Your task to perform on an android device: find photos in the google photos app Image 0: 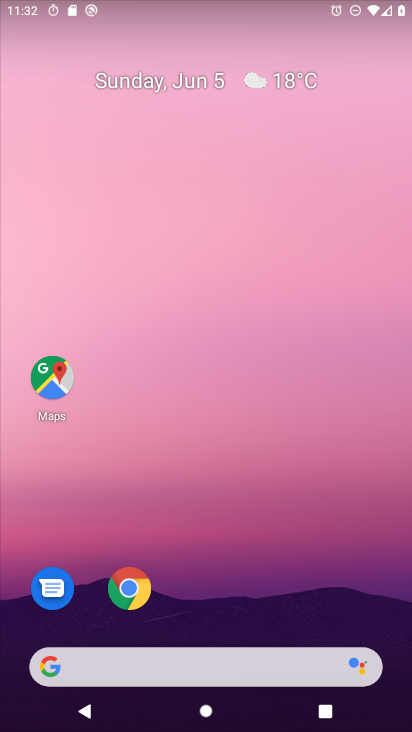
Step 0: drag from (278, 535) to (292, 170)
Your task to perform on an android device: find photos in the google photos app Image 1: 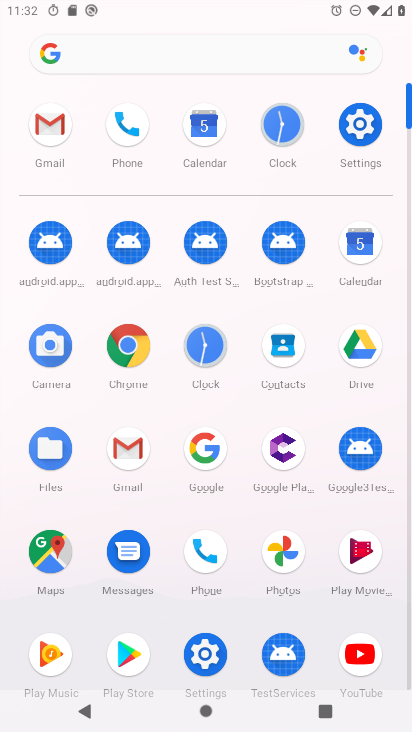
Step 1: click (291, 554)
Your task to perform on an android device: find photos in the google photos app Image 2: 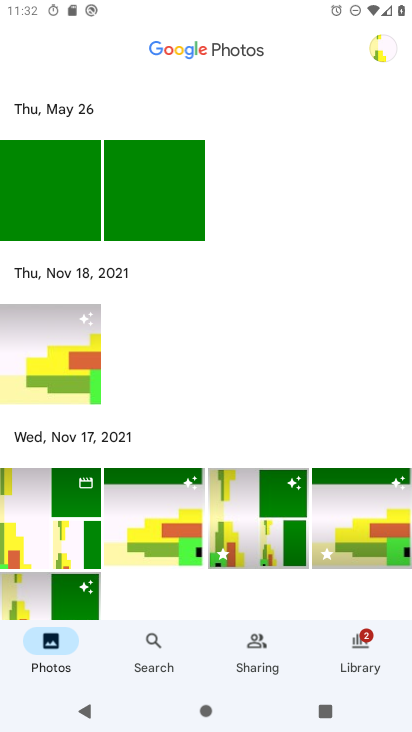
Step 2: click (26, 180)
Your task to perform on an android device: find photos in the google photos app Image 3: 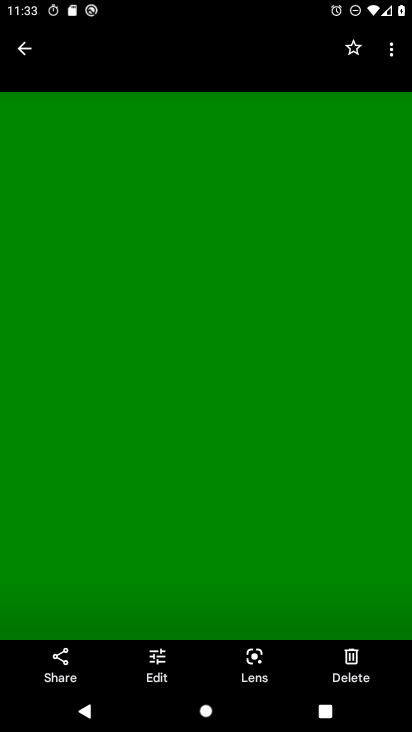
Step 3: task complete